Your task to perform on an android device: open a bookmark in the chrome app Image 0: 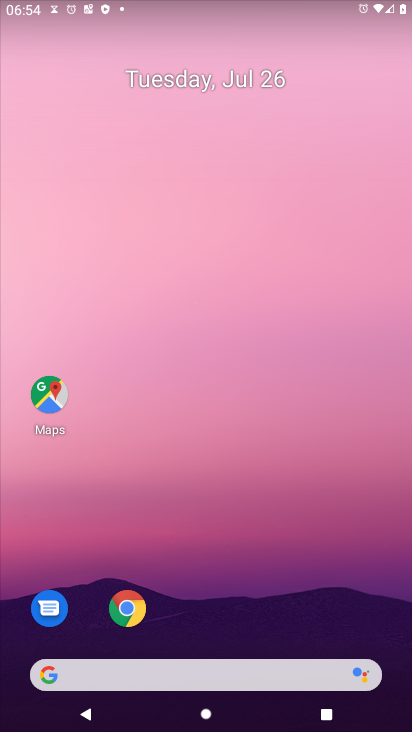
Step 0: press home button
Your task to perform on an android device: open a bookmark in the chrome app Image 1: 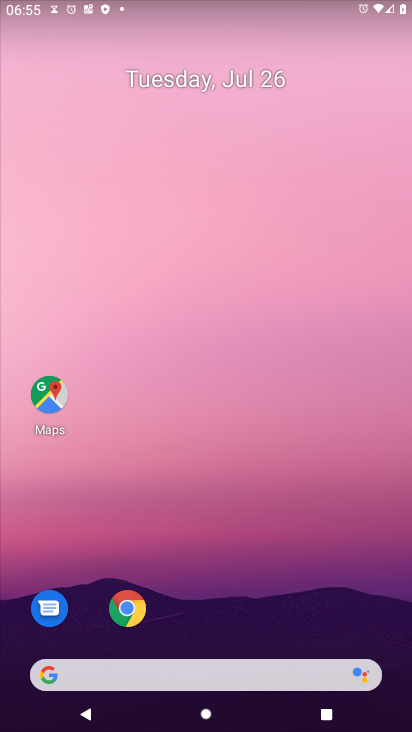
Step 1: drag from (258, 639) to (280, 267)
Your task to perform on an android device: open a bookmark in the chrome app Image 2: 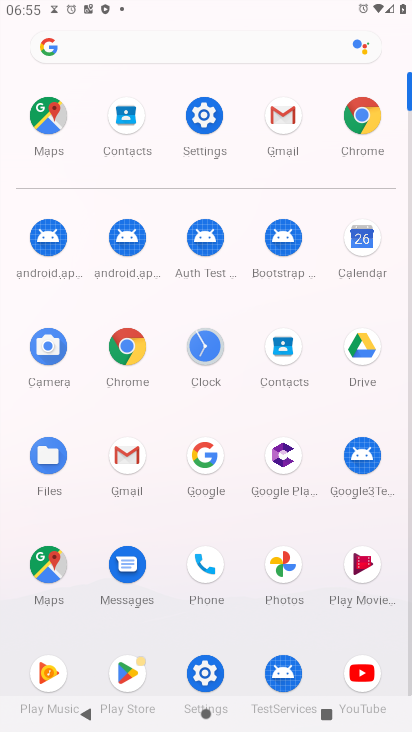
Step 2: click (370, 111)
Your task to perform on an android device: open a bookmark in the chrome app Image 3: 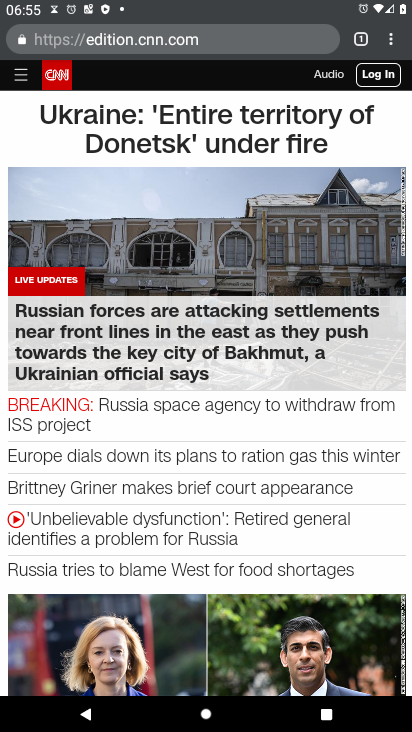
Step 3: drag from (396, 39) to (283, 151)
Your task to perform on an android device: open a bookmark in the chrome app Image 4: 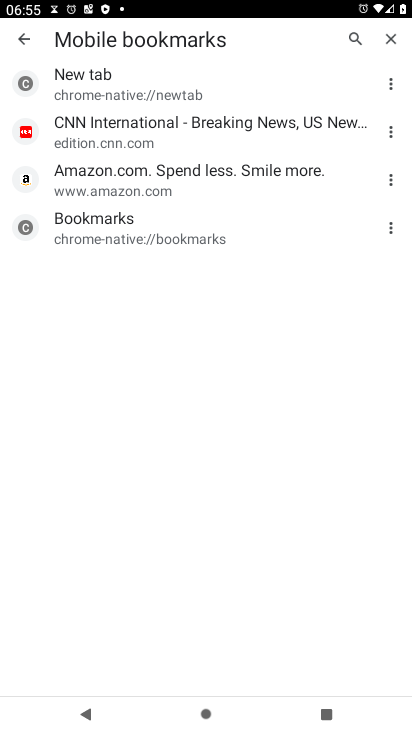
Step 4: click (108, 129)
Your task to perform on an android device: open a bookmark in the chrome app Image 5: 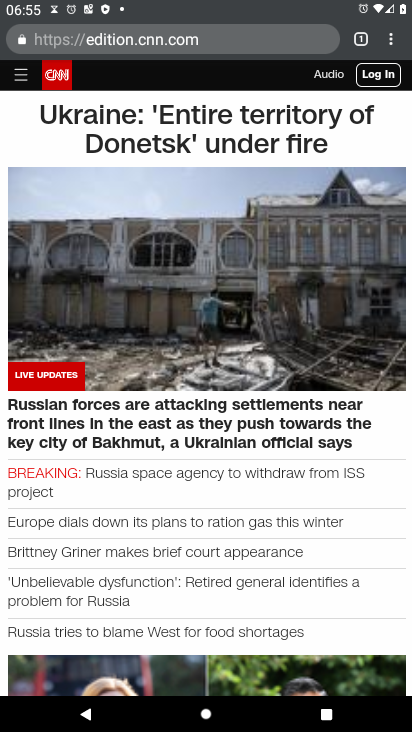
Step 5: task complete